Your task to perform on an android device: turn off translation in the chrome app Image 0: 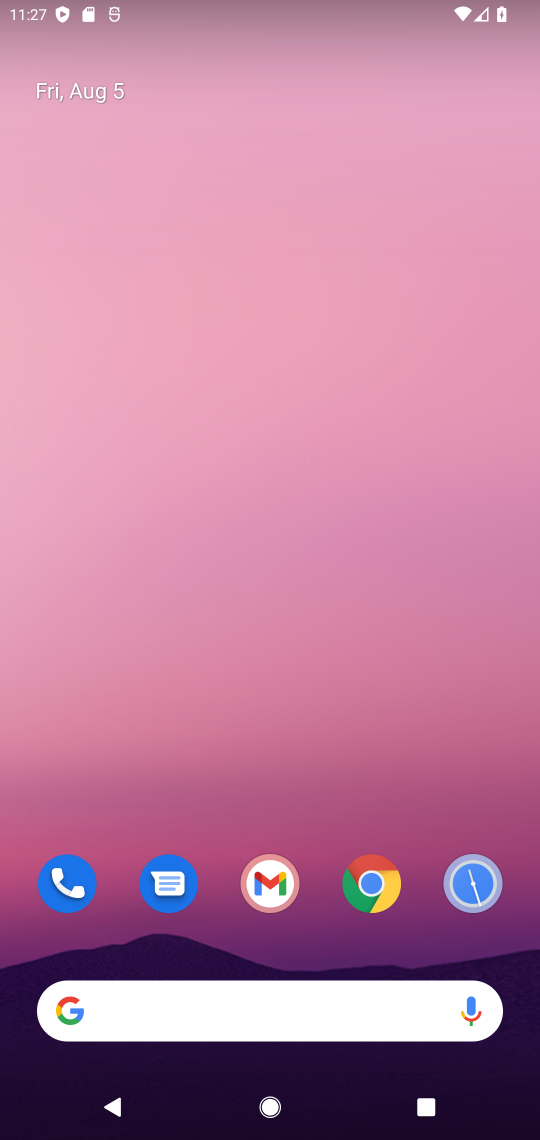
Step 0: click (379, 883)
Your task to perform on an android device: turn off translation in the chrome app Image 1: 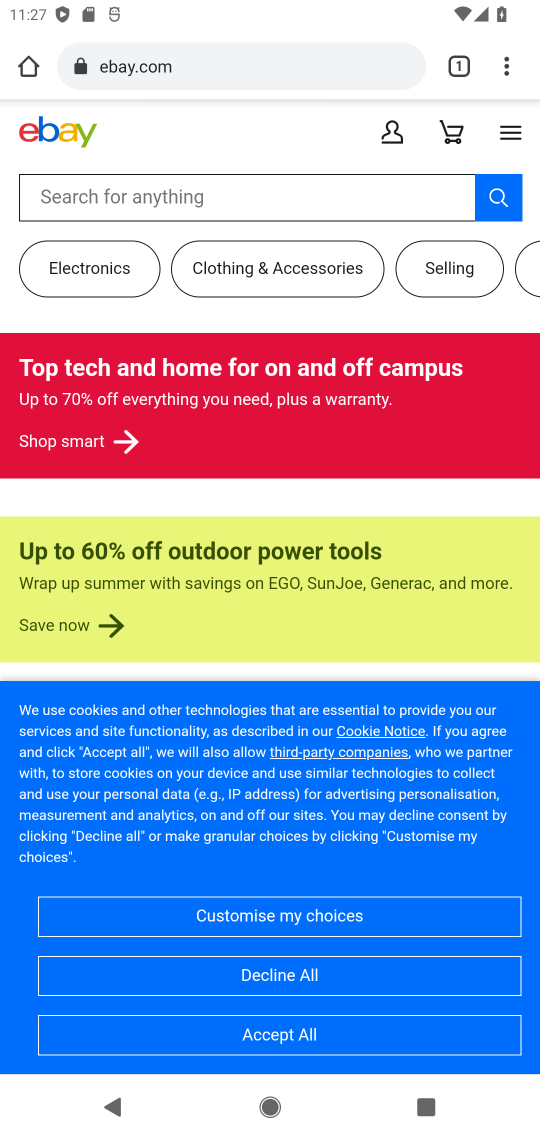
Step 1: click (503, 65)
Your task to perform on an android device: turn off translation in the chrome app Image 2: 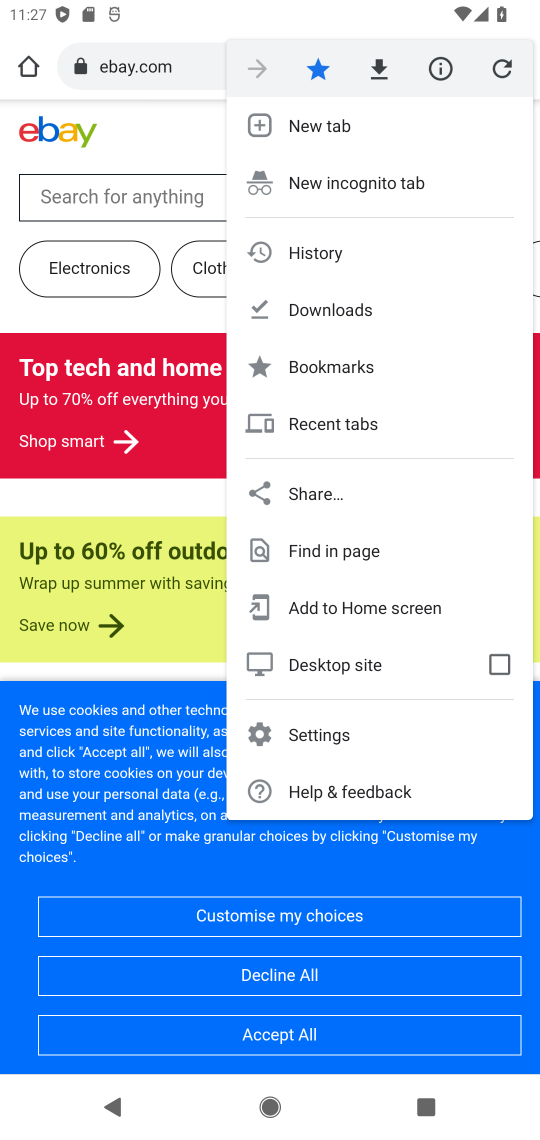
Step 2: click (317, 723)
Your task to perform on an android device: turn off translation in the chrome app Image 3: 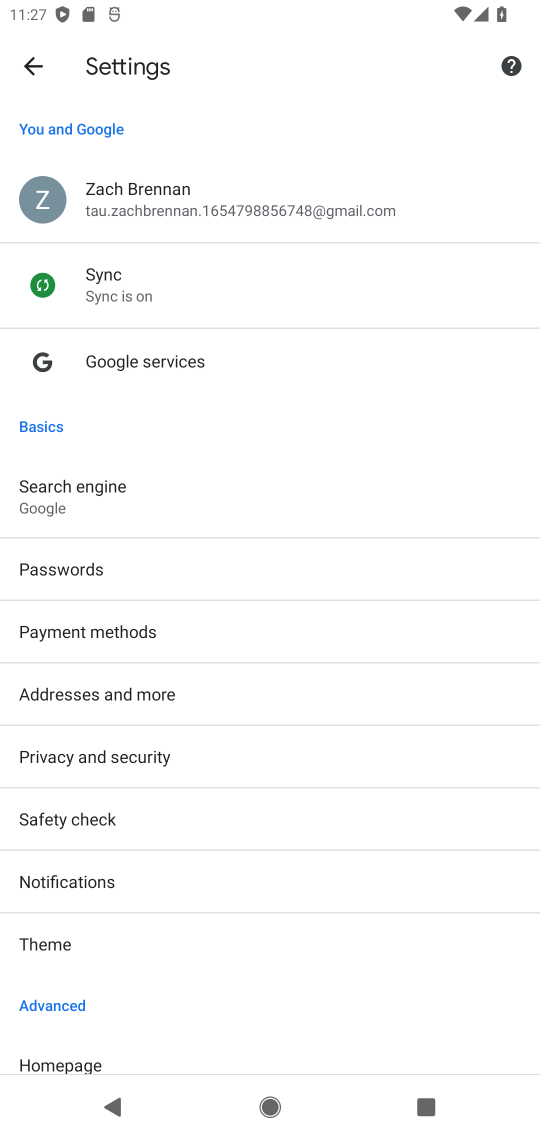
Step 3: drag from (234, 857) to (269, 340)
Your task to perform on an android device: turn off translation in the chrome app Image 4: 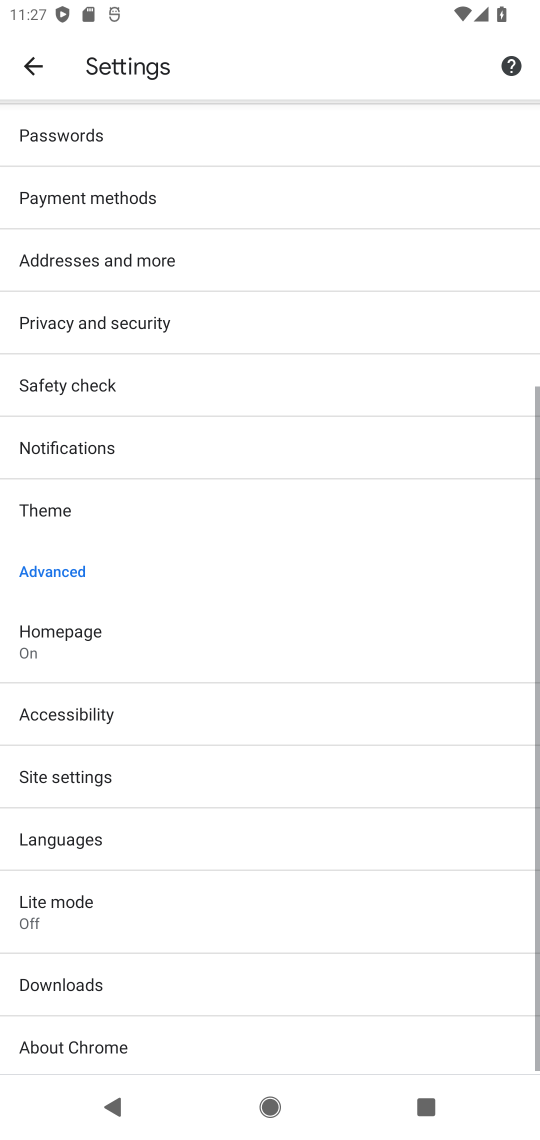
Step 4: drag from (269, 340) to (294, 49)
Your task to perform on an android device: turn off translation in the chrome app Image 5: 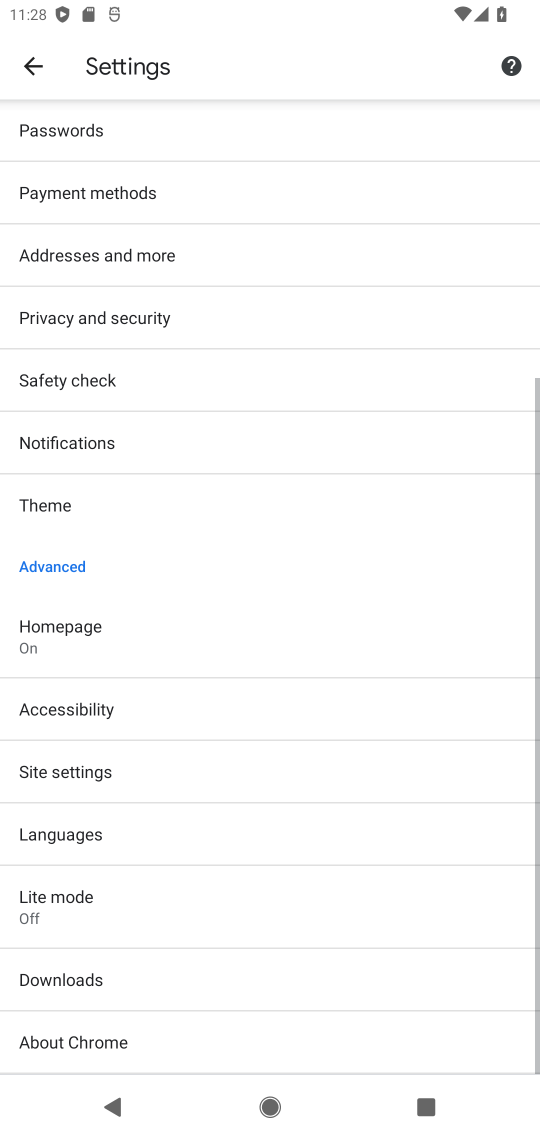
Step 5: drag from (402, 624) to (348, 148)
Your task to perform on an android device: turn off translation in the chrome app Image 6: 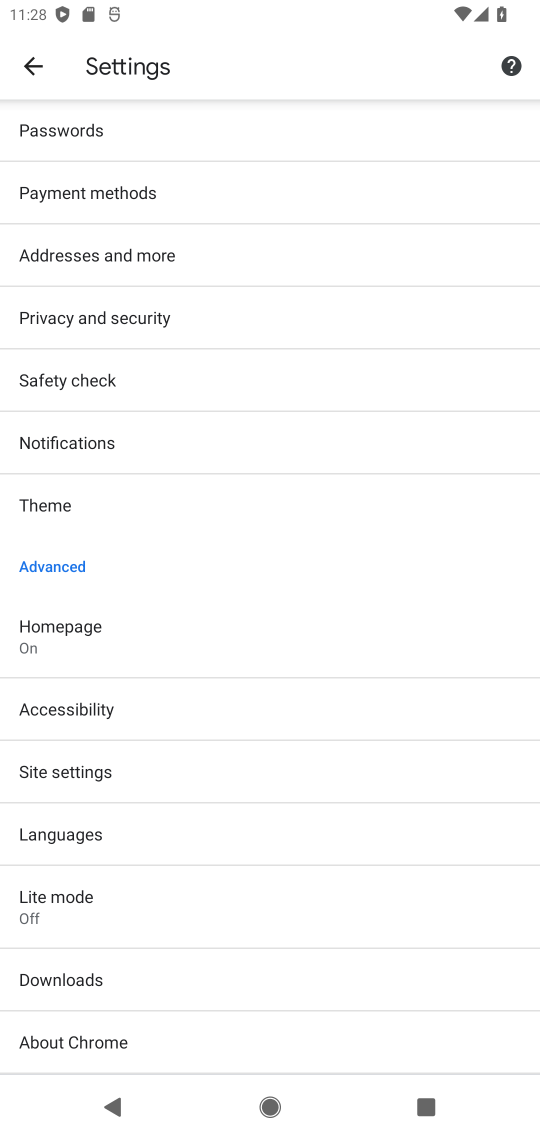
Step 6: click (95, 829)
Your task to perform on an android device: turn off translation in the chrome app Image 7: 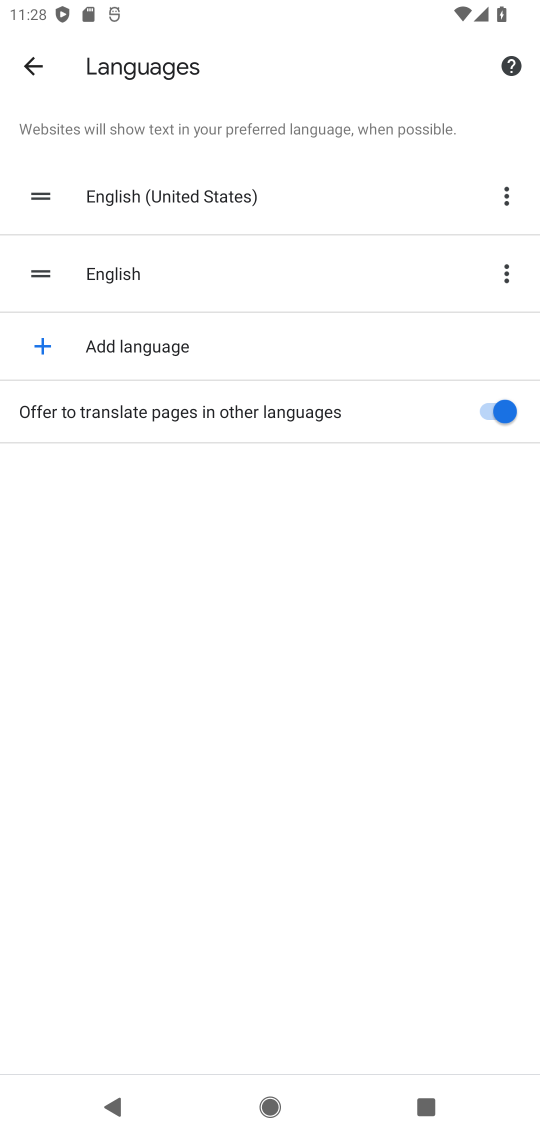
Step 7: click (503, 409)
Your task to perform on an android device: turn off translation in the chrome app Image 8: 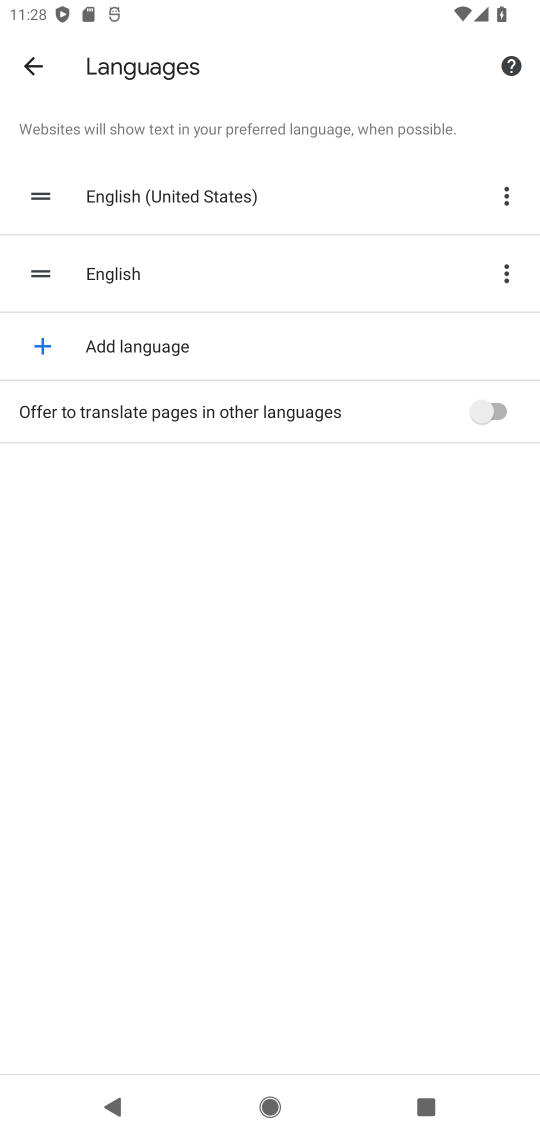
Step 8: task complete